Your task to perform on an android device: Go to display settings Image 0: 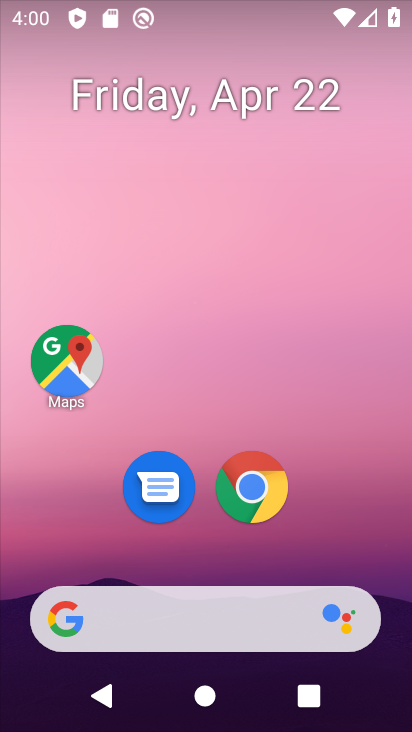
Step 0: drag from (266, 405) to (253, 101)
Your task to perform on an android device: Go to display settings Image 1: 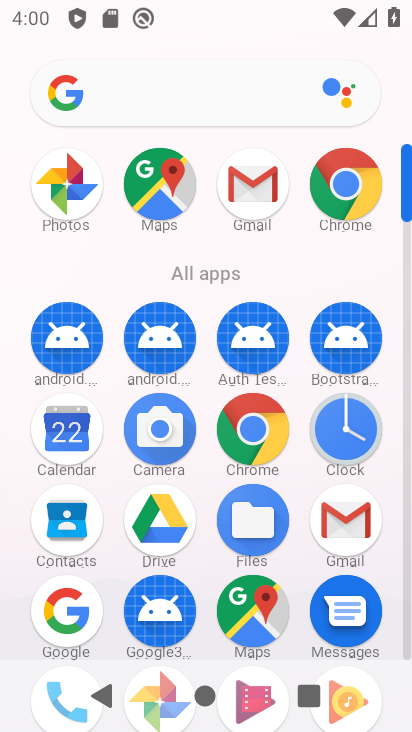
Step 1: drag from (185, 519) to (188, 292)
Your task to perform on an android device: Go to display settings Image 2: 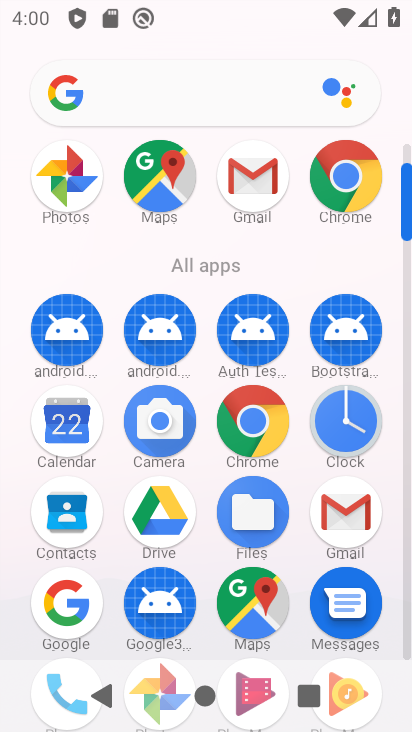
Step 2: drag from (207, 523) to (202, 152)
Your task to perform on an android device: Go to display settings Image 3: 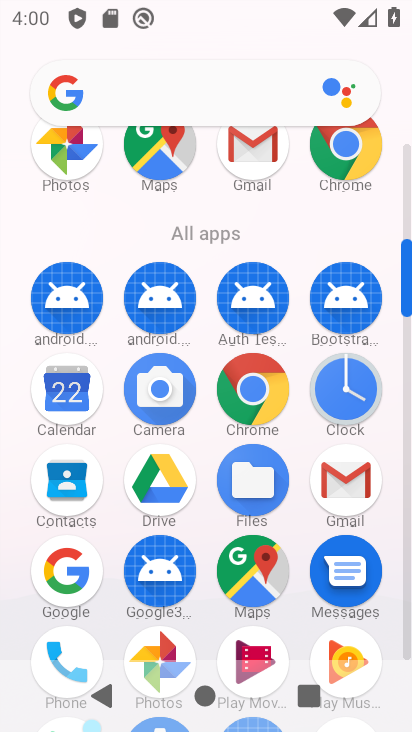
Step 3: drag from (246, 584) to (261, 48)
Your task to perform on an android device: Go to display settings Image 4: 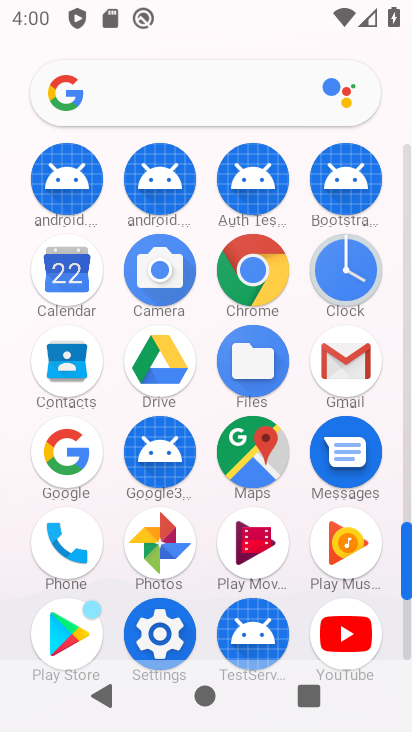
Step 4: click (135, 631)
Your task to perform on an android device: Go to display settings Image 5: 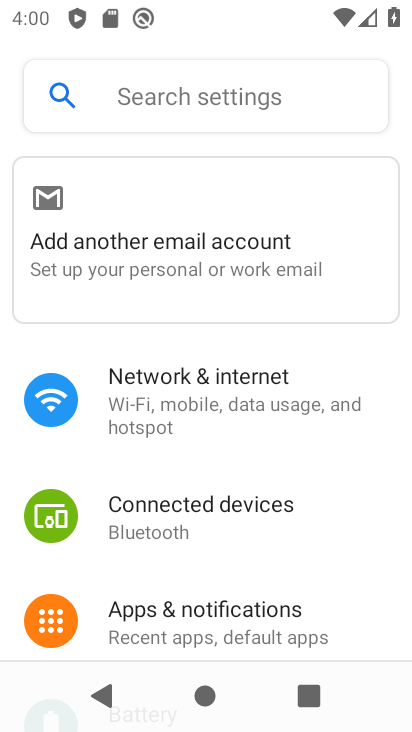
Step 5: drag from (136, 619) to (248, 199)
Your task to perform on an android device: Go to display settings Image 6: 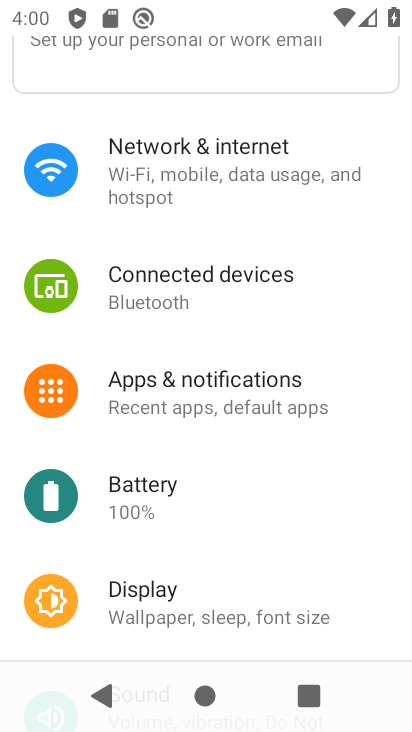
Step 6: click (271, 610)
Your task to perform on an android device: Go to display settings Image 7: 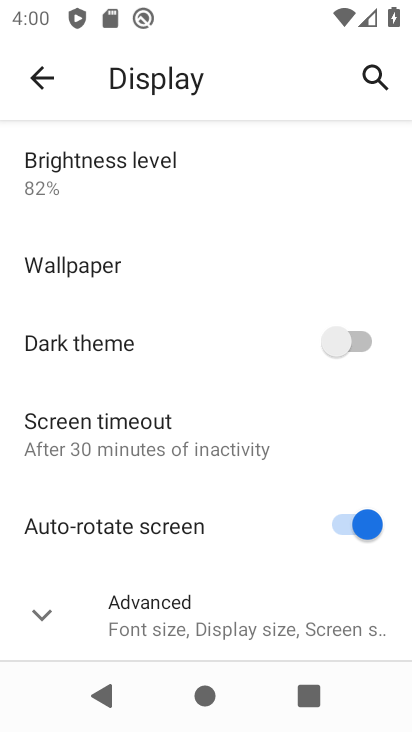
Step 7: task complete